Your task to perform on an android device: Open Chrome and go to settings Image 0: 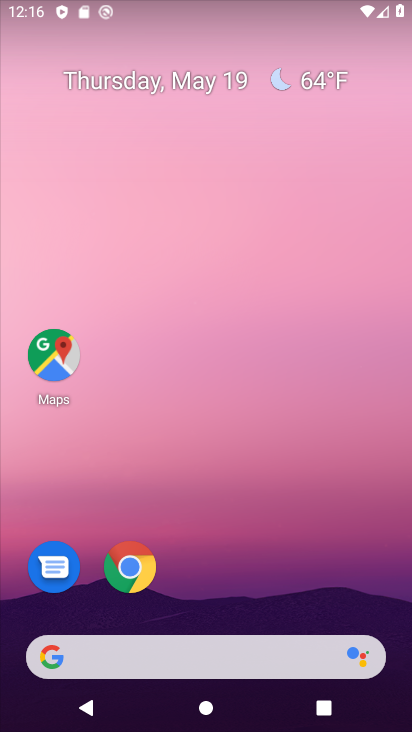
Step 0: click (152, 587)
Your task to perform on an android device: Open Chrome and go to settings Image 1: 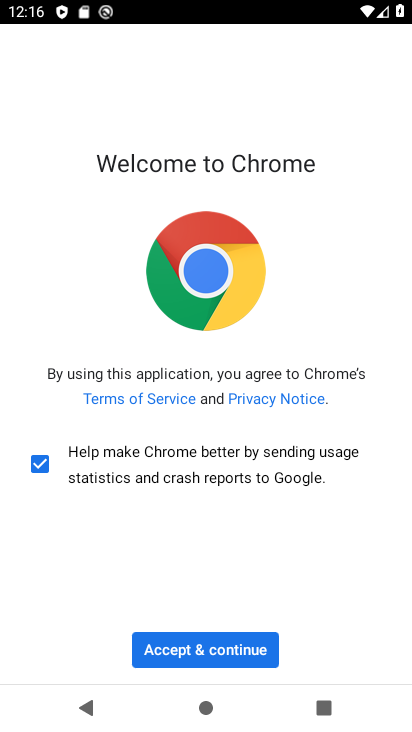
Step 1: click (262, 644)
Your task to perform on an android device: Open Chrome and go to settings Image 2: 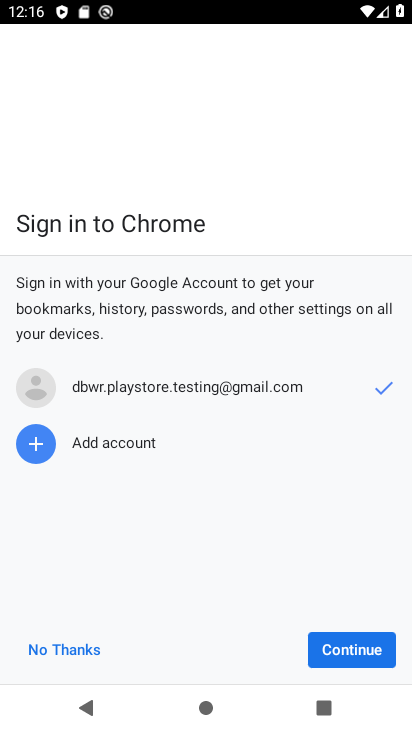
Step 2: click (338, 657)
Your task to perform on an android device: Open Chrome and go to settings Image 3: 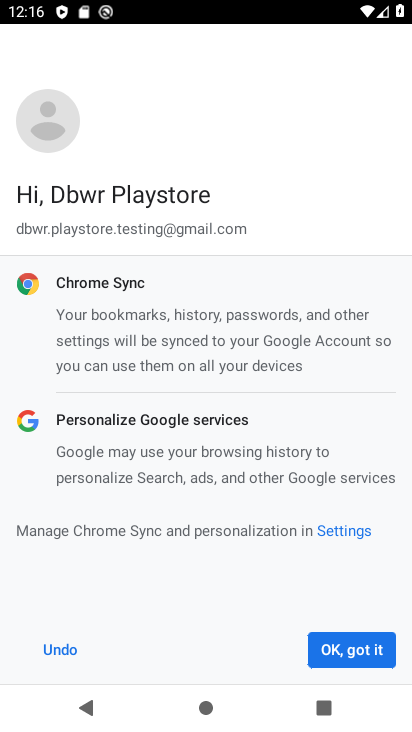
Step 3: click (341, 641)
Your task to perform on an android device: Open Chrome and go to settings Image 4: 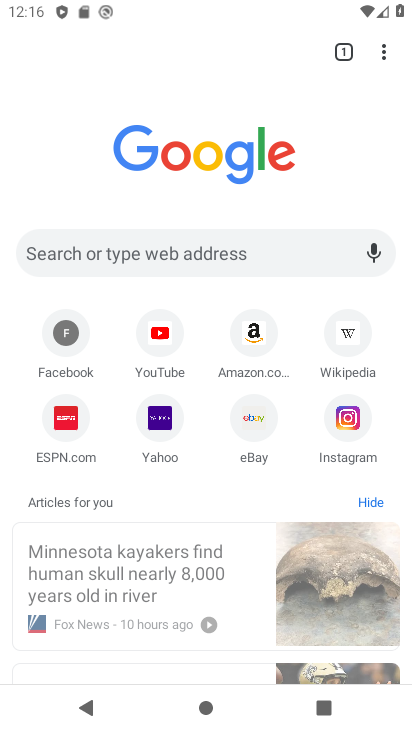
Step 4: task complete